Your task to perform on an android device: Empty the shopping cart on amazon. Add "usb-c" to the cart on amazon Image 0: 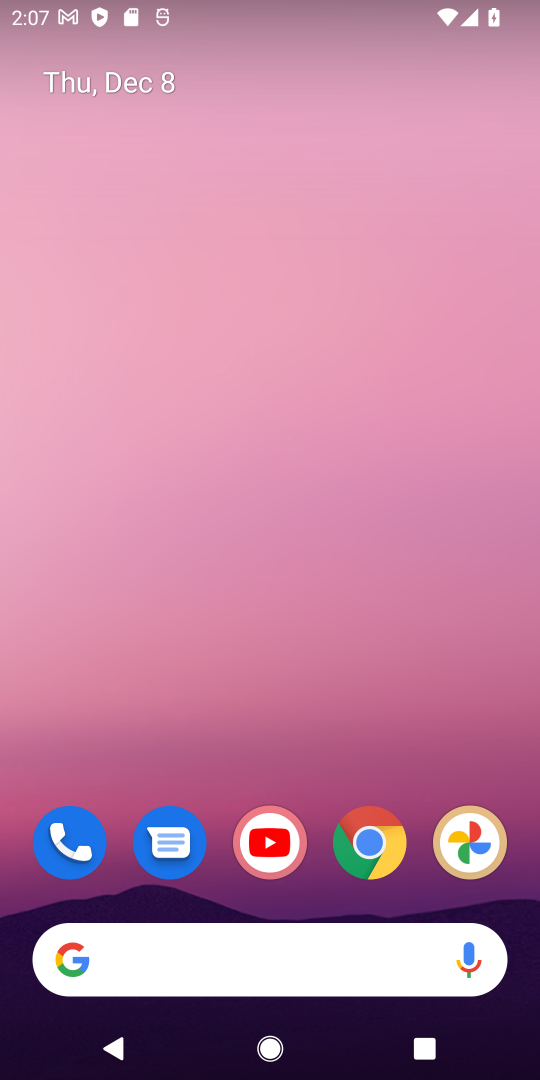
Step 0: drag from (295, 618) to (310, 134)
Your task to perform on an android device: Empty the shopping cart on amazon. Add "usb-c" to the cart on amazon Image 1: 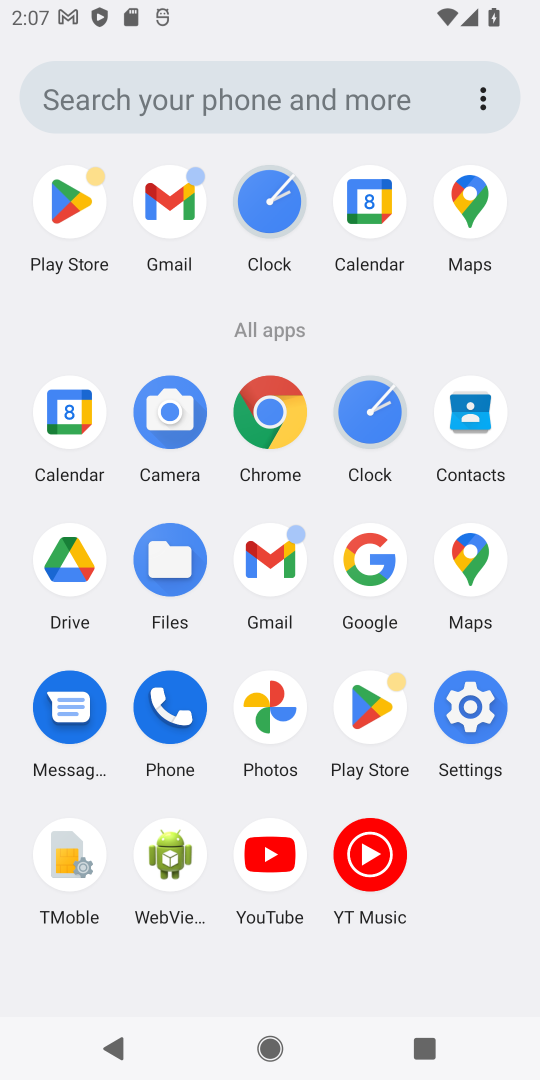
Step 1: click (380, 569)
Your task to perform on an android device: Empty the shopping cart on amazon. Add "usb-c" to the cart on amazon Image 2: 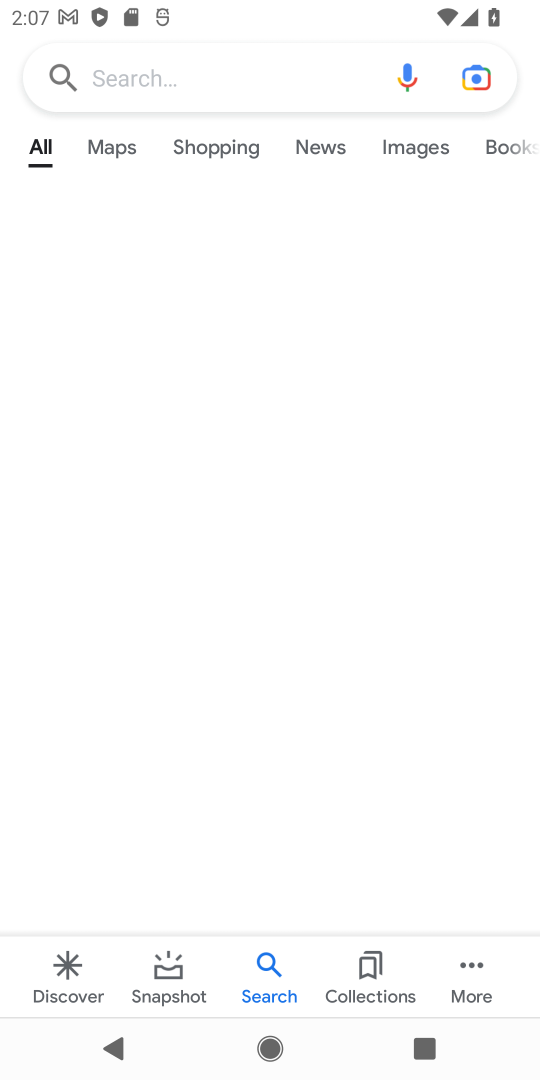
Step 2: click (129, 72)
Your task to perform on an android device: Empty the shopping cart on amazon. Add "usb-c" to the cart on amazon Image 3: 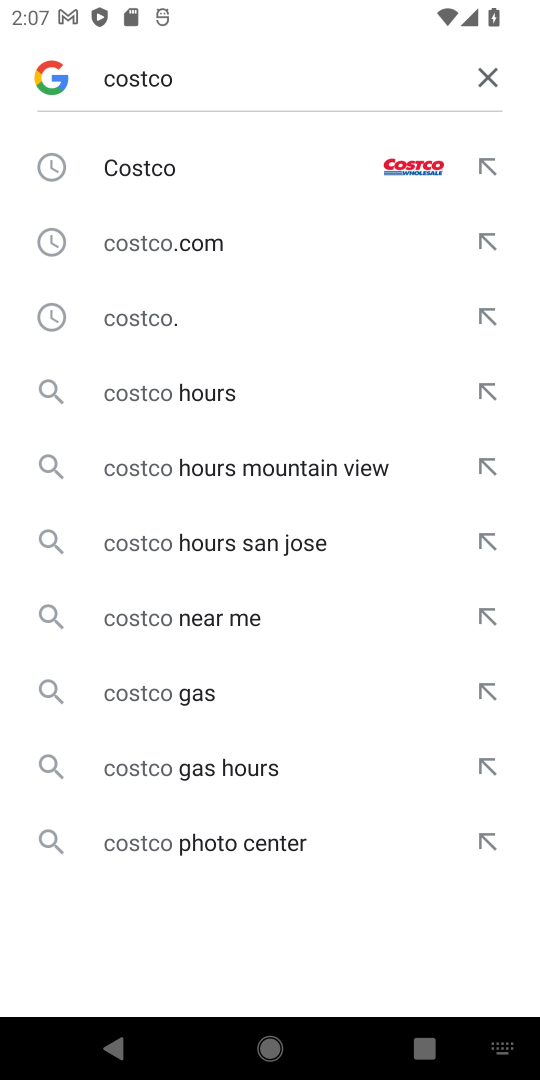
Step 3: click (494, 81)
Your task to perform on an android device: Empty the shopping cart on amazon. Add "usb-c" to the cart on amazon Image 4: 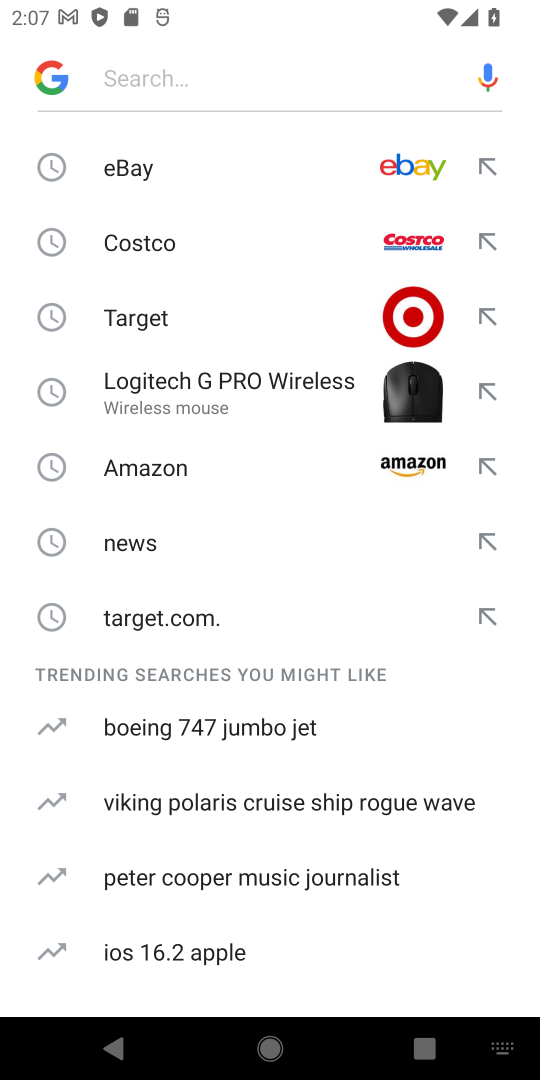
Step 4: click (416, 466)
Your task to perform on an android device: Empty the shopping cart on amazon. Add "usb-c" to the cart on amazon Image 5: 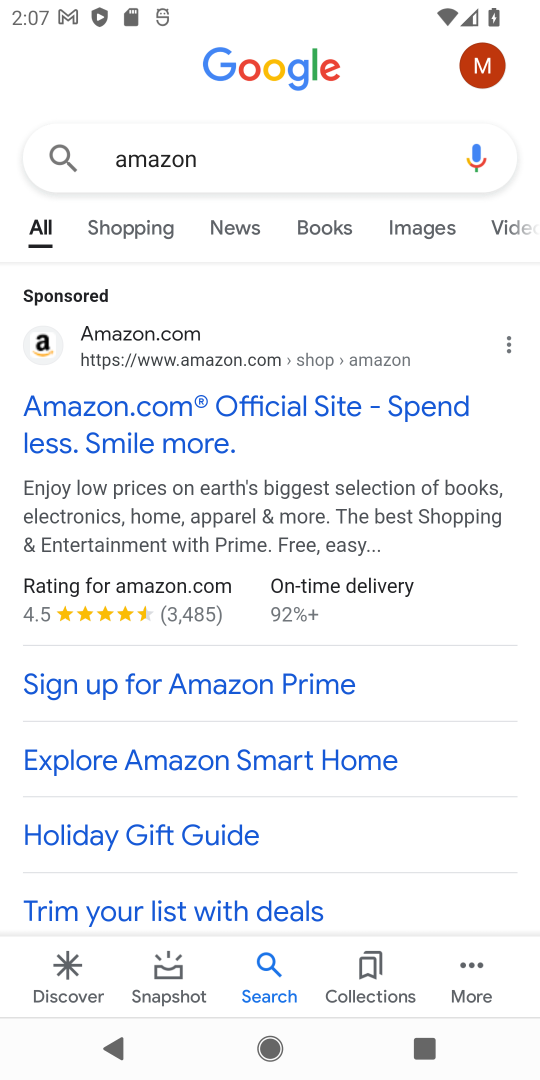
Step 5: click (206, 422)
Your task to perform on an android device: Empty the shopping cart on amazon. Add "usb-c" to the cart on amazon Image 6: 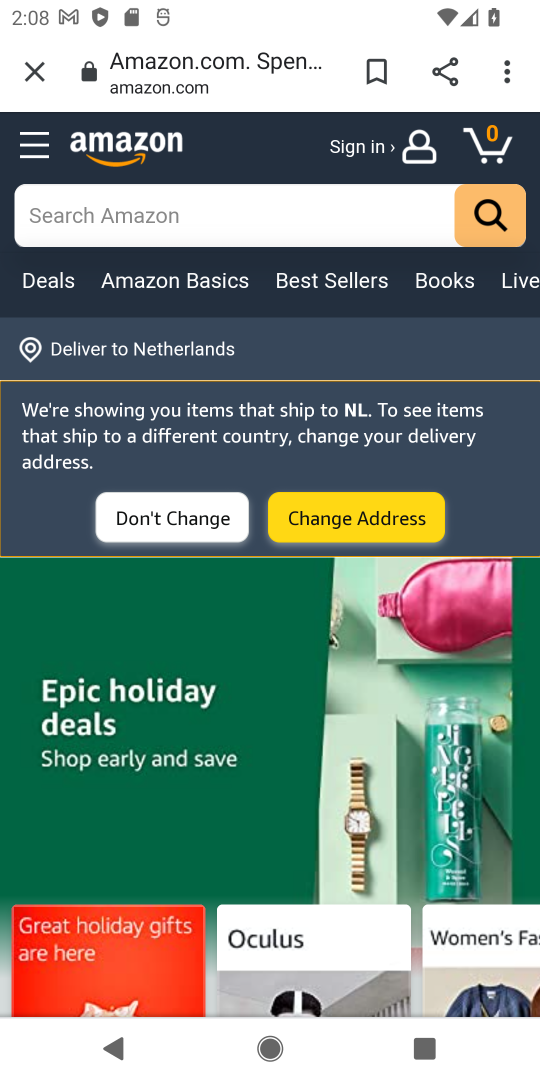
Step 6: click (233, 216)
Your task to perform on an android device: Empty the shopping cart on amazon. Add "usb-c" to the cart on amazon Image 7: 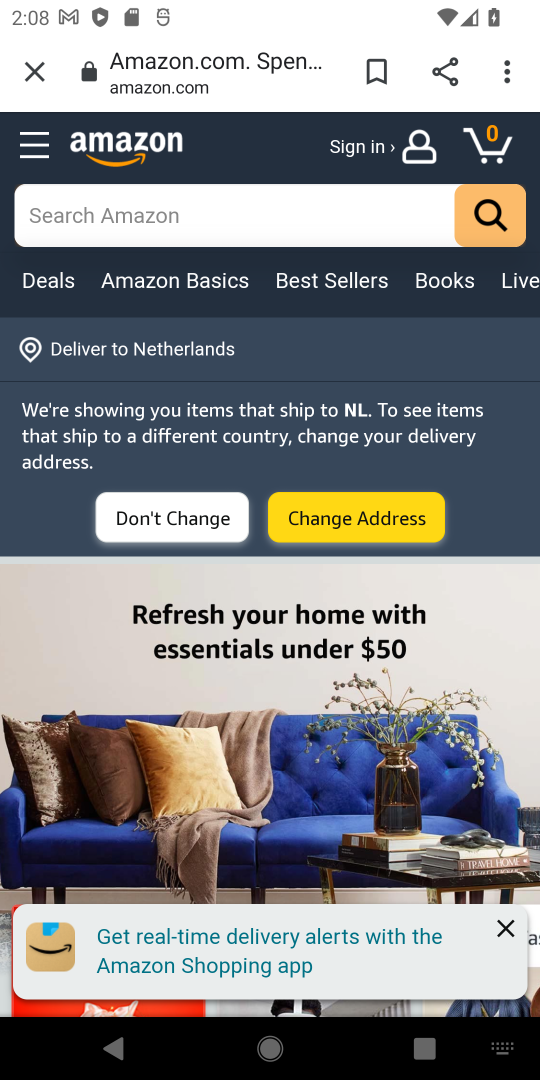
Step 7: click (504, 920)
Your task to perform on an android device: Empty the shopping cart on amazon. Add "usb-c" to the cart on amazon Image 8: 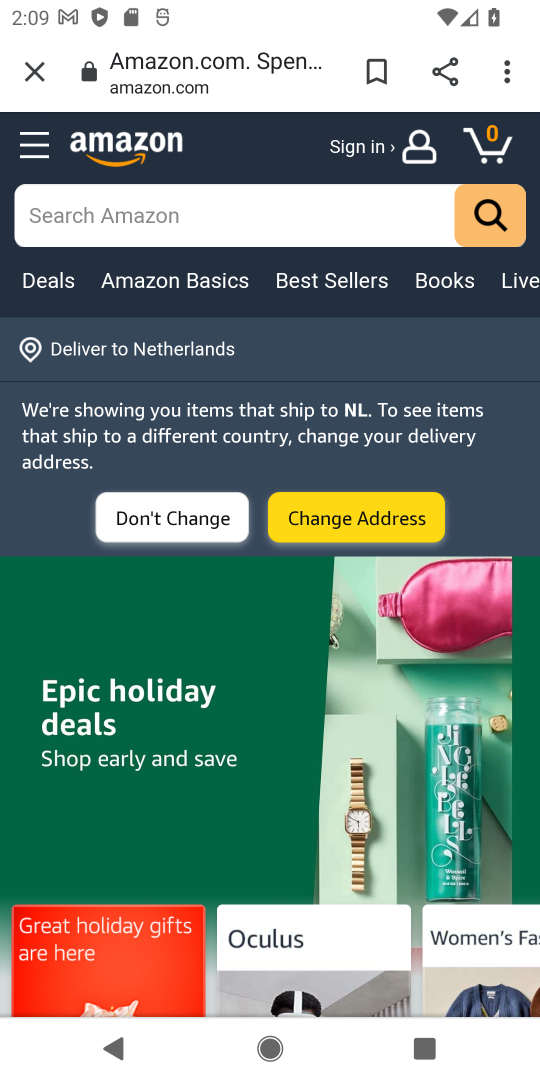
Step 8: click (194, 199)
Your task to perform on an android device: Empty the shopping cart on amazon. Add "usb-c" to the cart on amazon Image 9: 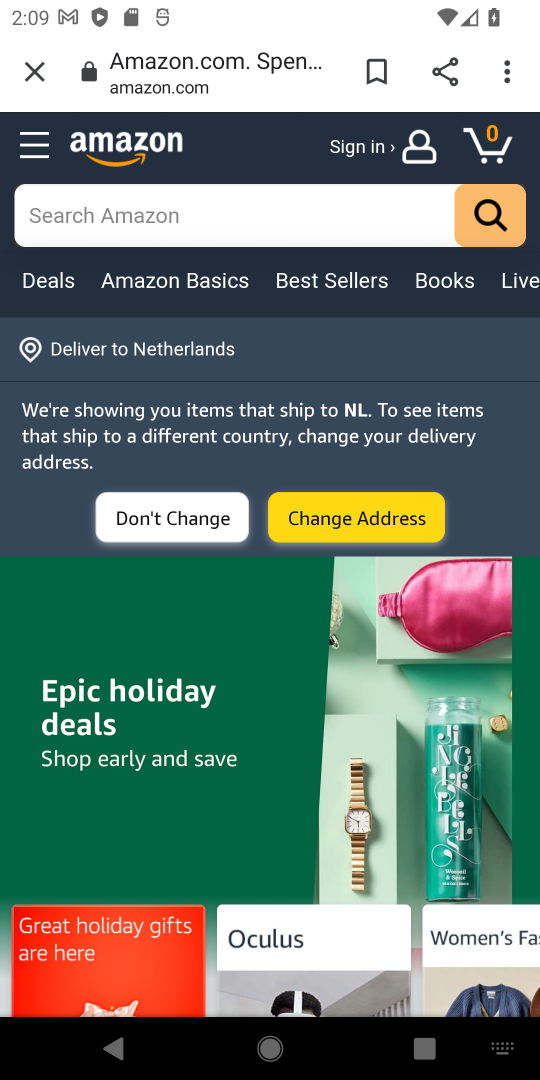
Step 9: type "usb-c"
Your task to perform on an android device: Empty the shopping cart on amazon. Add "usb-c" to the cart on amazon Image 10: 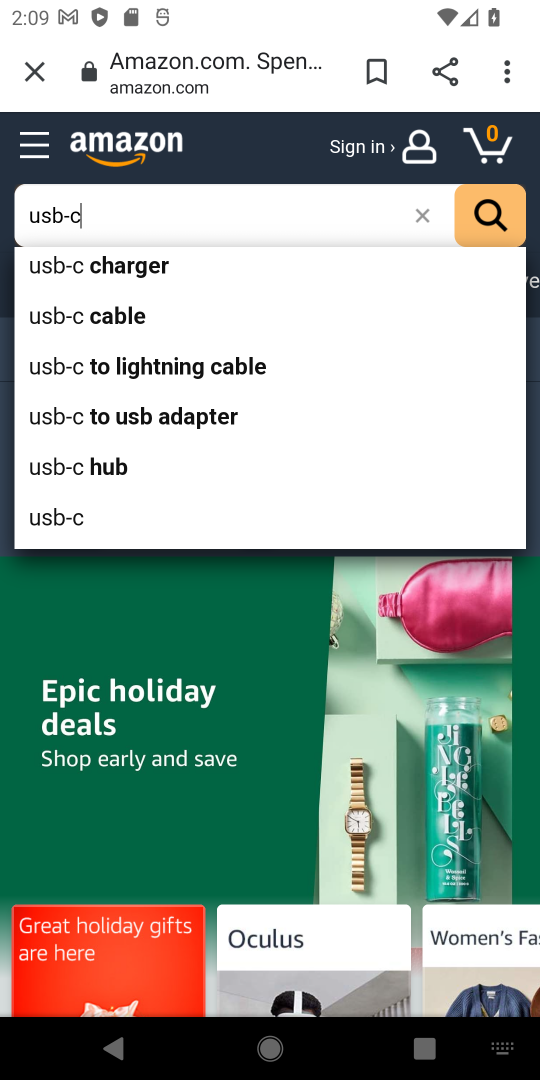
Step 10: click (99, 325)
Your task to perform on an android device: Empty the shopping cart on amazon. Add "usb-c" to the cart on amazon Image 11: 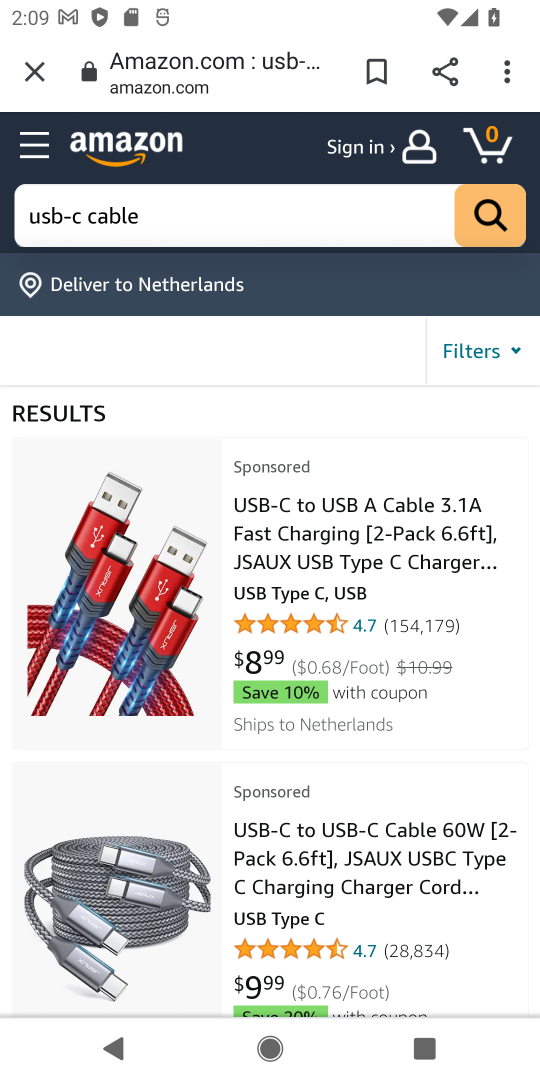
Step 11: click (316, 544)
Your task to perform on an android device: Empty the shopping cart on amazon. Add "usb-c" to the cart on amazon Image 12: 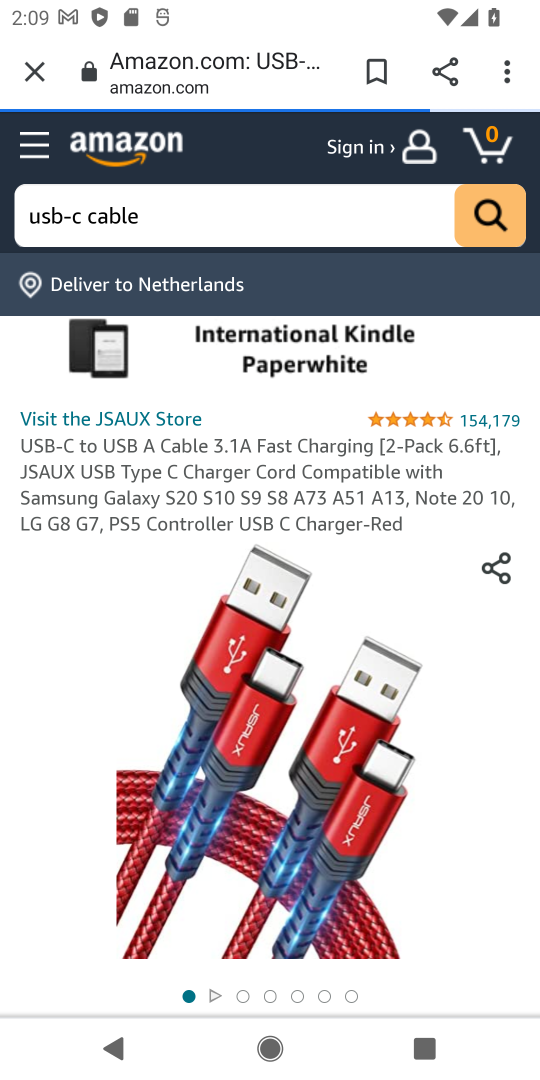
Step 12: drag from (357, 967) to (345, 530)
Your task to perform on an android device: Empty the shopping cart on amazon. Add "usb-c" to the cart on amazon Image 13: 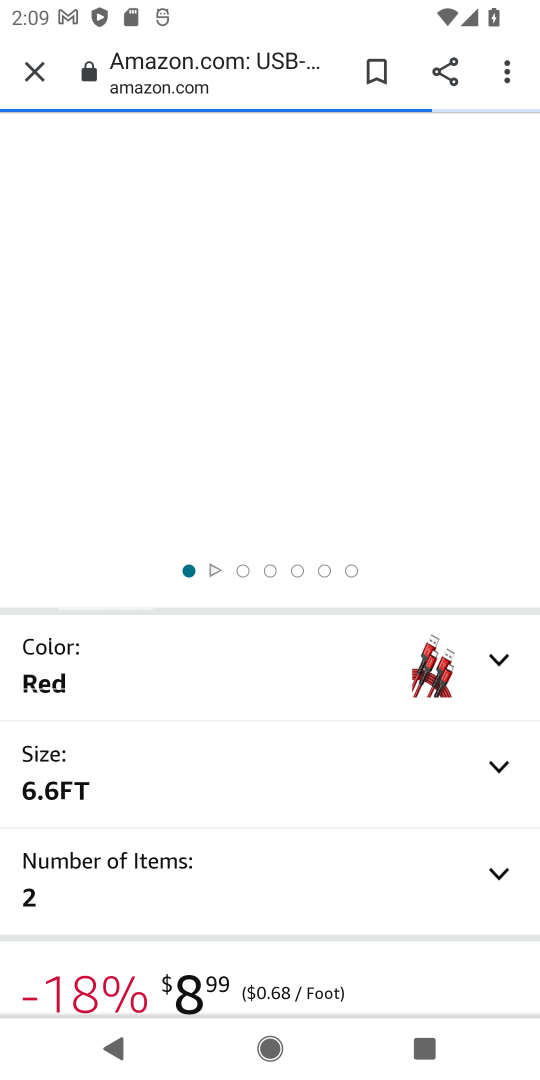
Step 13: drag from (338, 921) to (303, 351)
Your task to perform on an android device: Empty the shopping cart on amazon. Add "usb-c" to the cart on amazon Image 14: 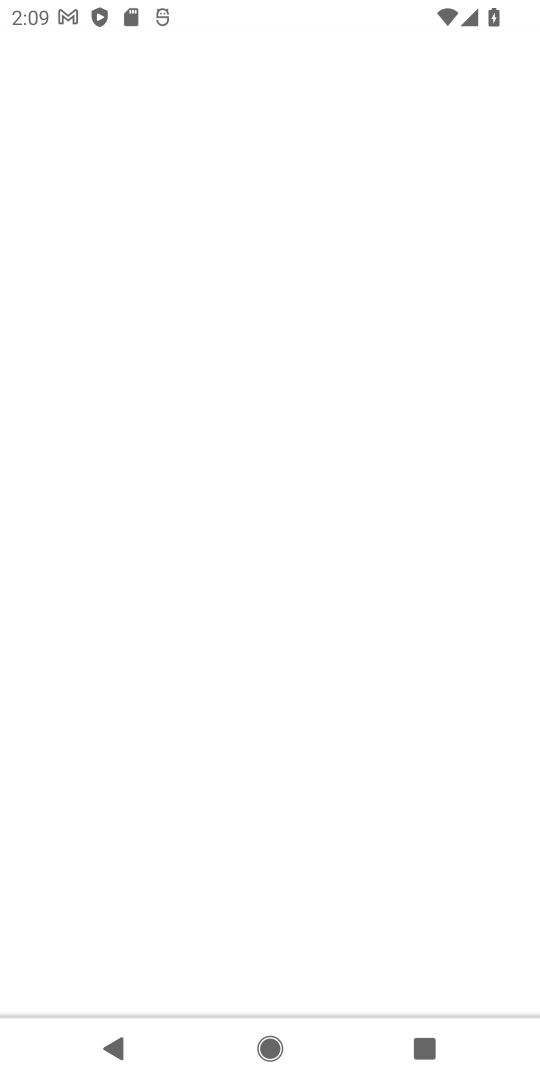
Step 14: drag from (269, 863) to (292, 370)
Your task to perform on an android device: Empty the shopping cart on amazon. Add "usb-c" to the cart on amazon Image 15: 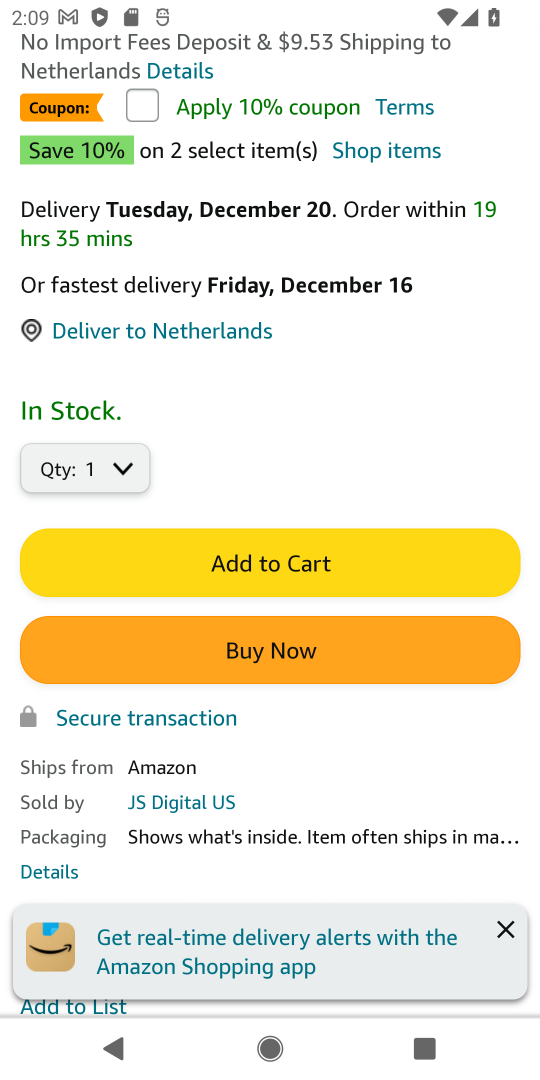
Step 15: click (258, 568)
Your task to perform on an android device: Empty the shopping cart on amazon. Add "usb-c" to the cart on amazon Image 16: 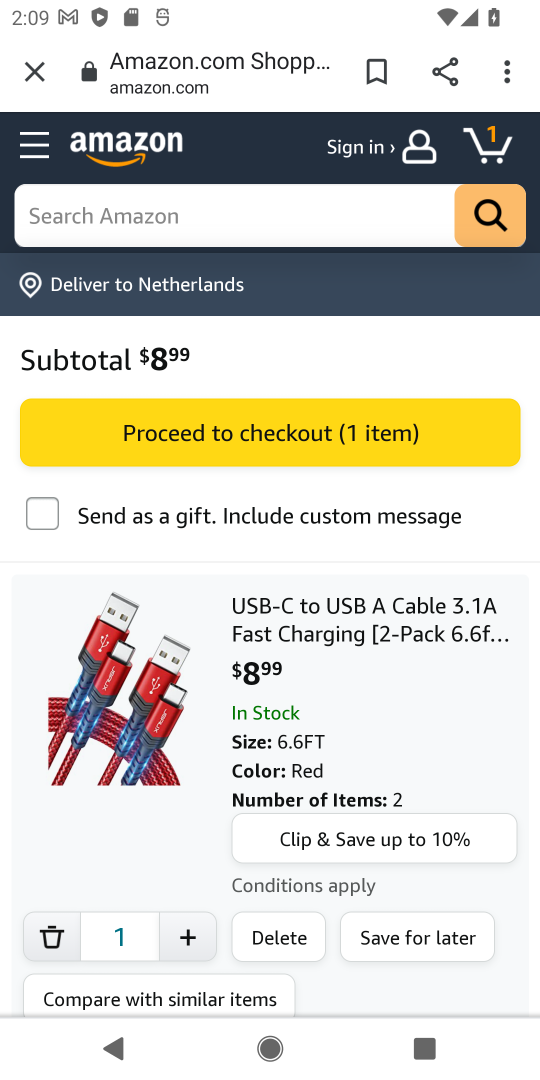
Step 16: task complete